Your task to perform on an android device: turn off location history Image 0: 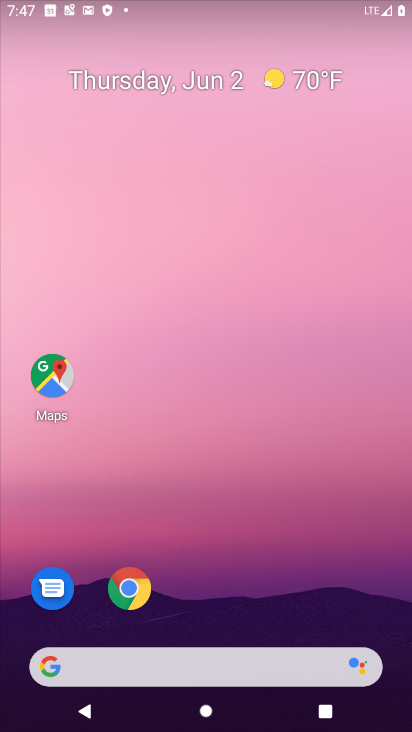
Step 0: click (273, 314)
Your task to perform on an android device: turn off location history Image 1: 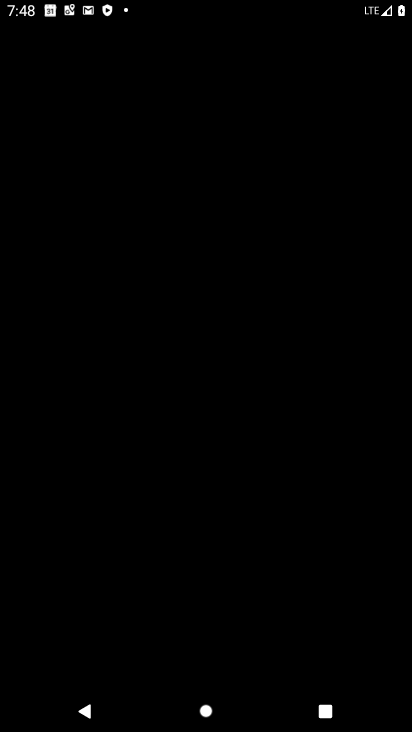
Step 1: press home button
Your task to perform on an android device: turn off location history Image 2: 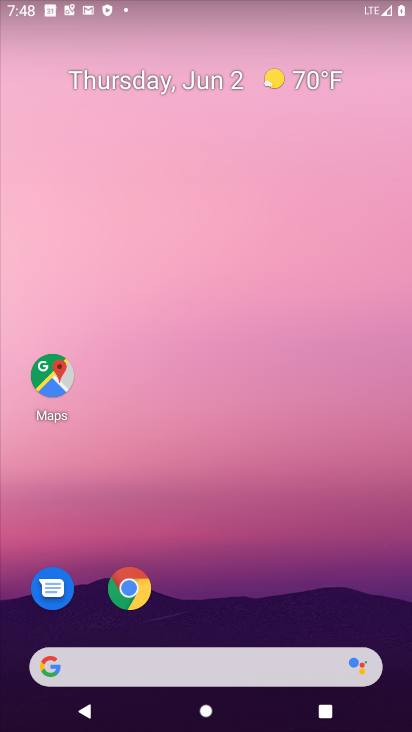
Step 2: drag from (178, 538) to (224, 52)
Your task to perform on an android device: turn off location history Image 3: 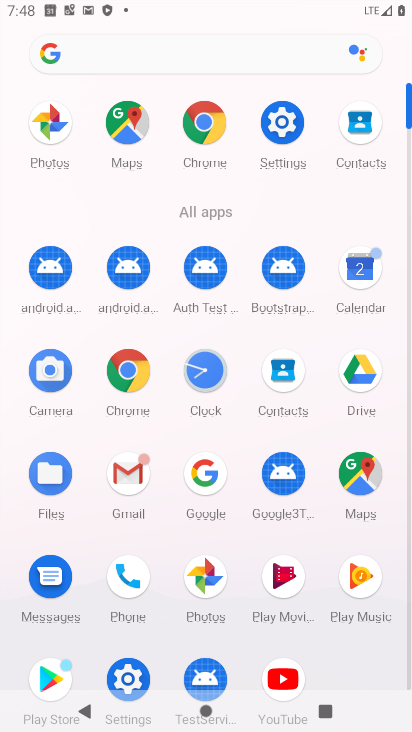
Step 3: click (280, 148)
Your task to perform on an android device: turn off location history Image 4: 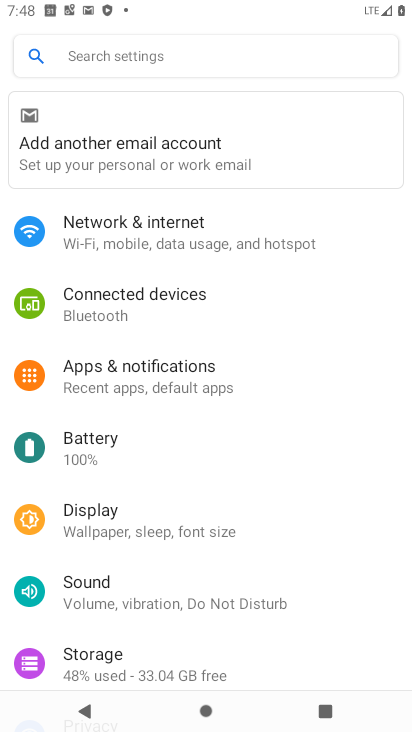
Step 4: drag from (167, 638) to (184, 363)
Your task to perform on an android device: turn off location history Image 5: 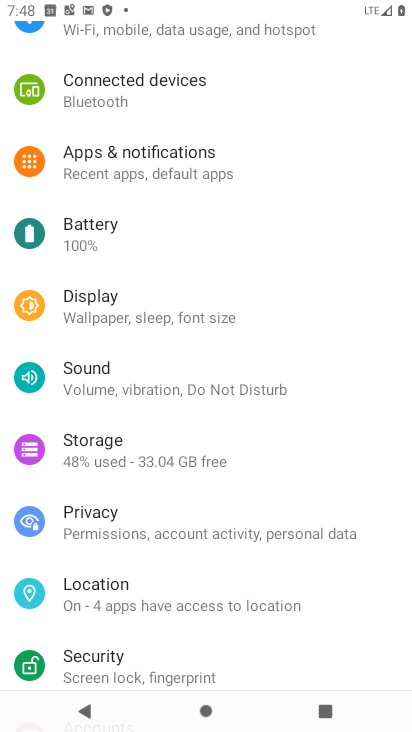
Step 5: click (126, 590)
Your task to perform on an android device: turn off location history Image 6: 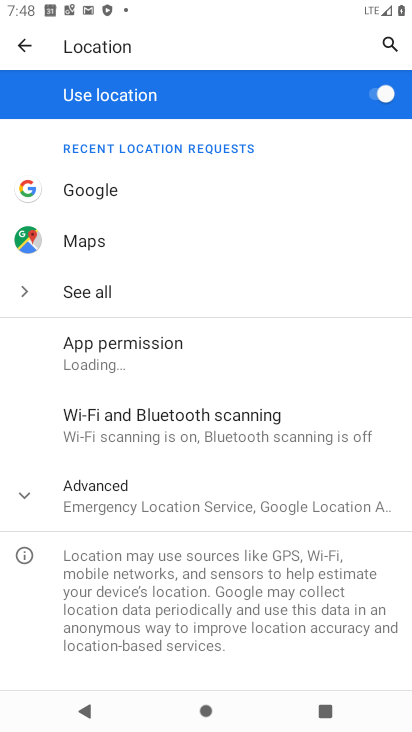
Step 6: click (149, 503)
Your task to perform on an android device: turn off location history Image 7: 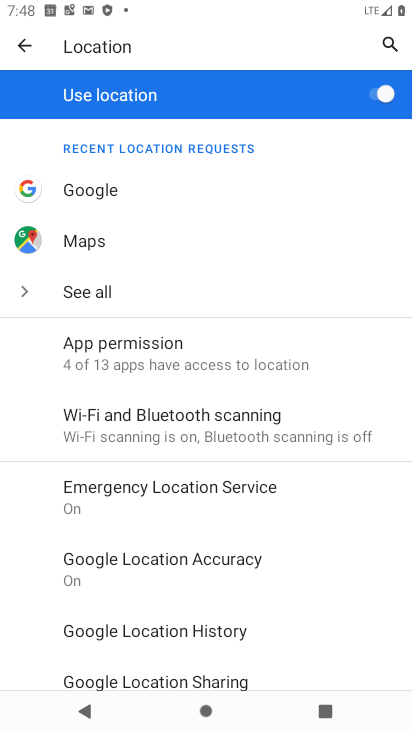
Step 7: click (102, 643)
Your task to perform on an android device: turn off location history Image 8: 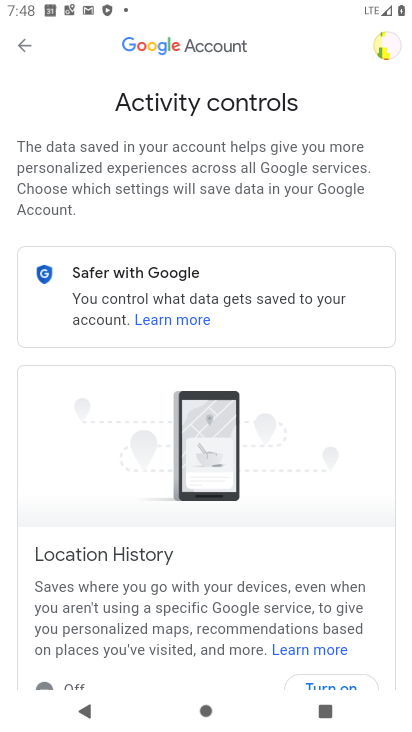
Step 8: task complete